Your task to perform on an android device: Go to eBay Image 0: 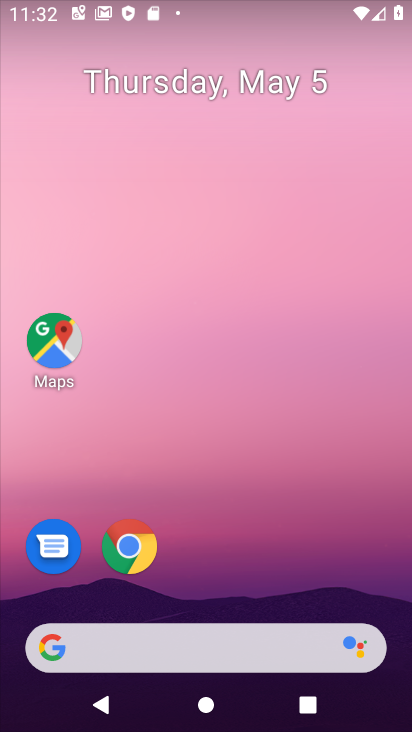
Step 0: click (132, 556)
Your task to perform on an android device: Go to eBay Image 1: 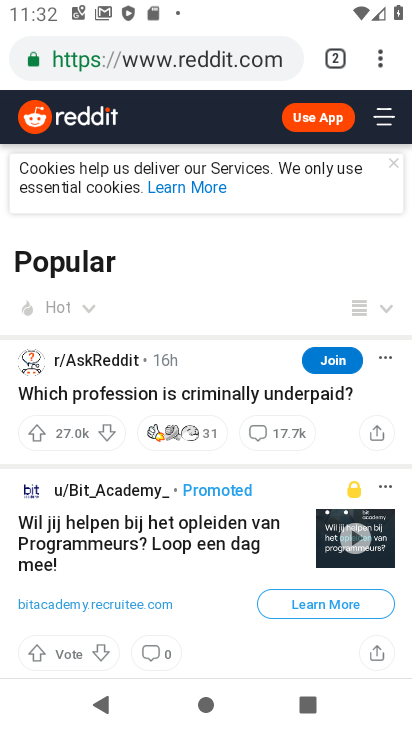
Step 1: click (333, 51)
Your task to perform on an android device: Go to eBay Image 2: 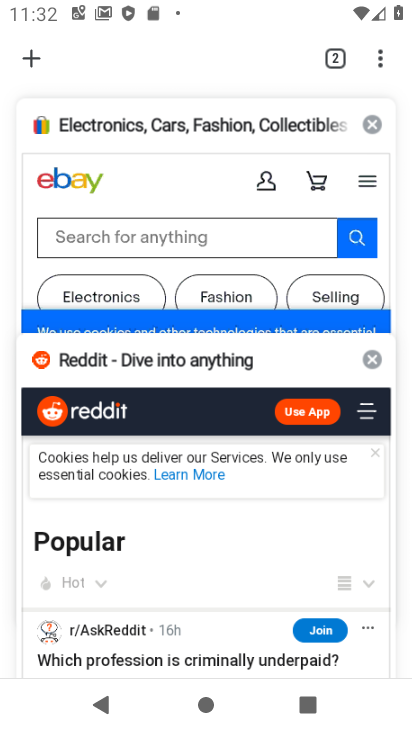
Step 2: click (205, 172)
Your task to perform on an android device: Go to eBay Image 3: 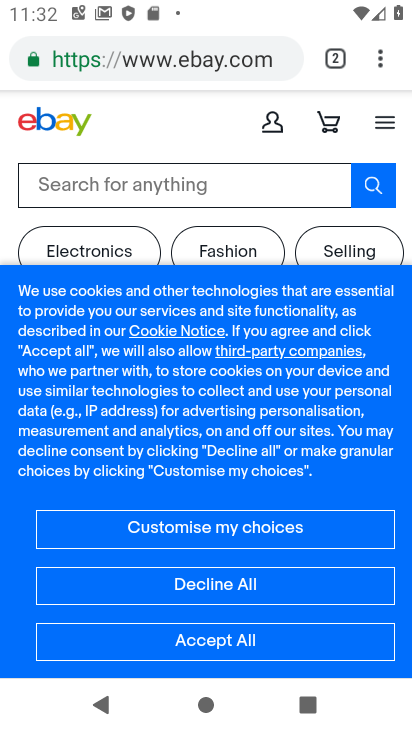
Step 3: task complete